Your task to perform on an android device: turn off data saver in the chrome app Image 0: 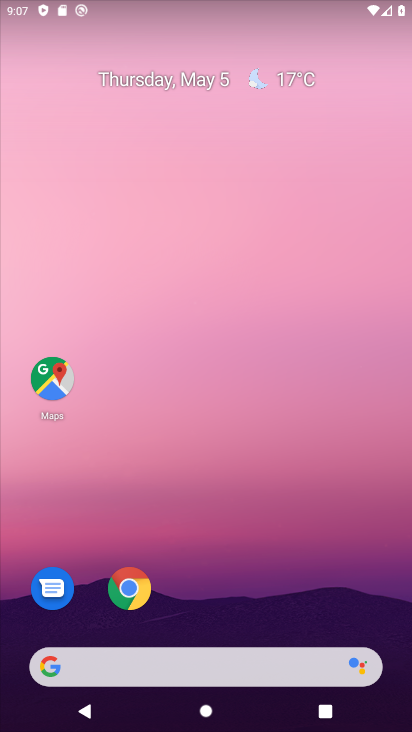
Step 0: drag from (285, 610) to (249, 86)
Your task to perform on an android device: turn off data saver in the chrome app Image 1: 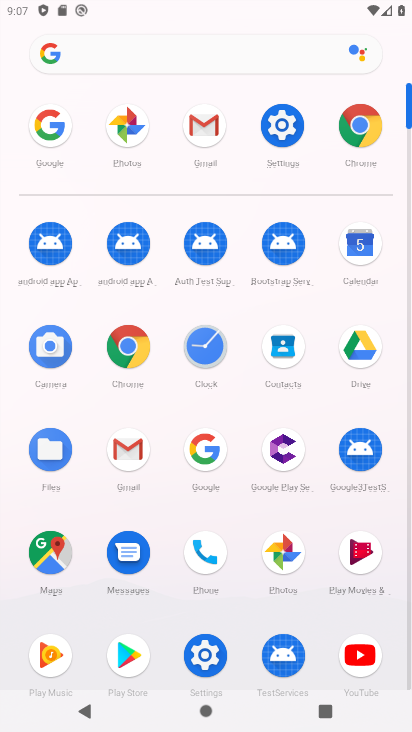
Step 1: click (112, 351)
Your task to perform on an android device: turn off data saver in the chrome app Image 2: 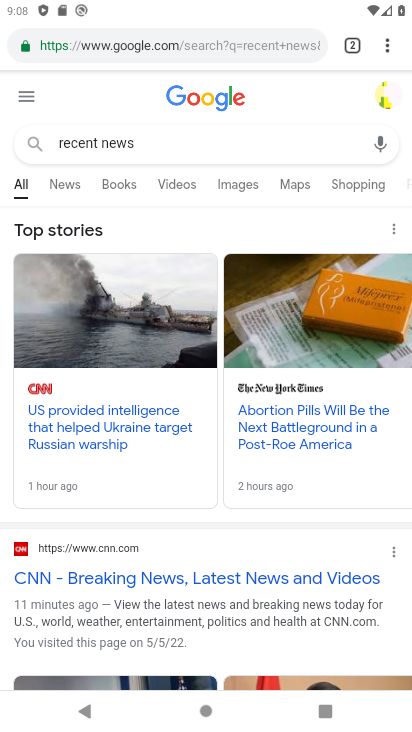
Step 2: click (378, 39)
Your task to perform on an android device: turn off data saver in the chrome app Image 3: 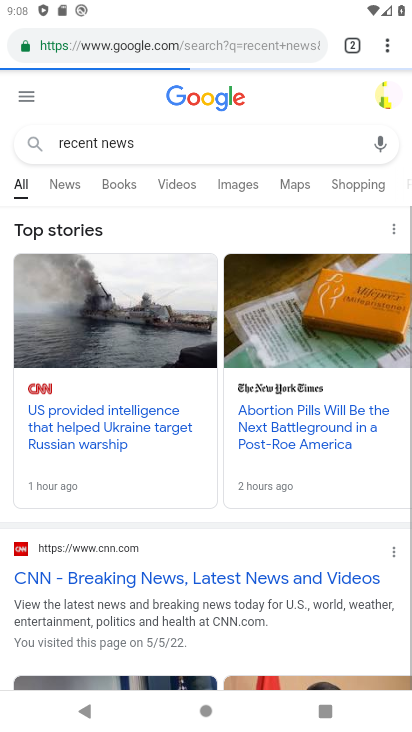
Step 3: click (380, 43)
Your task to perform on an android device: turn off data saver in the chrome app Image 4: 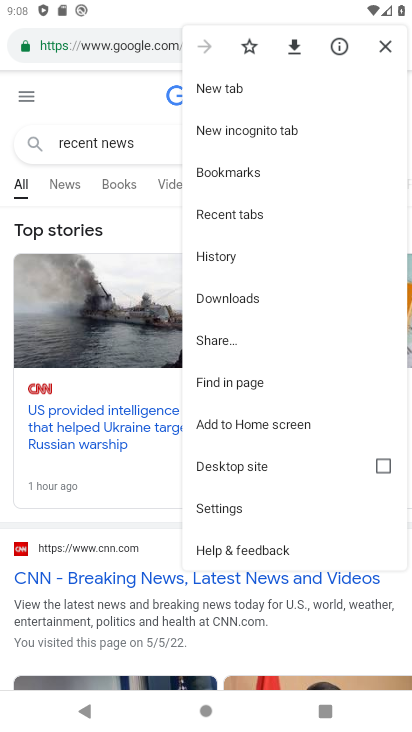
Step 4: click (253, 512)
Your task to perform on an android device: turn off data saver in the chrome app Image 5: 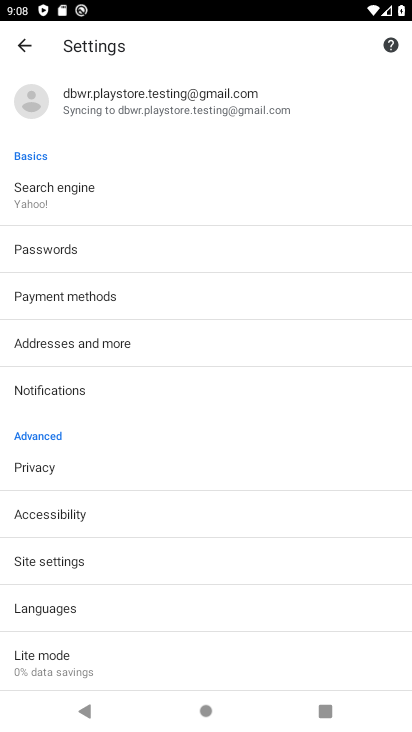
Step 5: click (76, 657)
Your task to perform on an android device: turn off data saver in the chrome app Image 6: 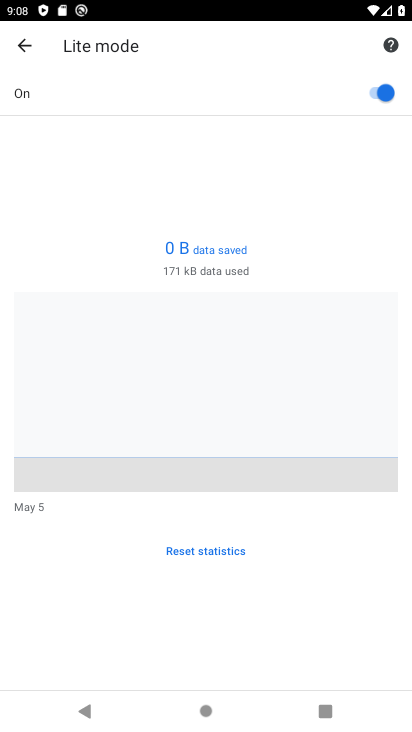
Step 6: click (378, 93)
Your task to perform on an android device: turn off data saver in the chrome app Image 7: 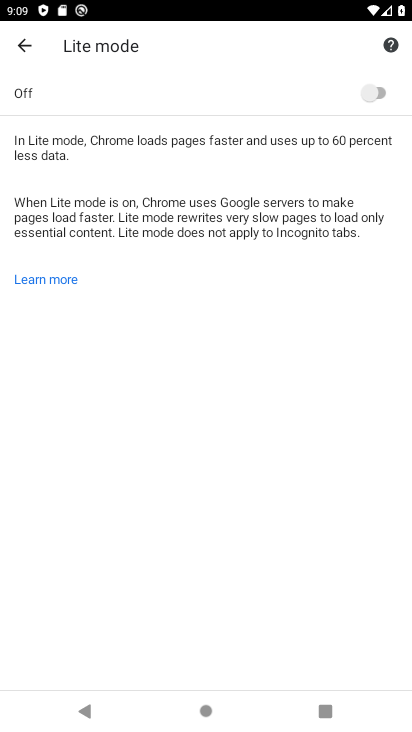
Step 7: task complete